Your task to perform on an android device: toggle javascript in the chrome app Image 0: 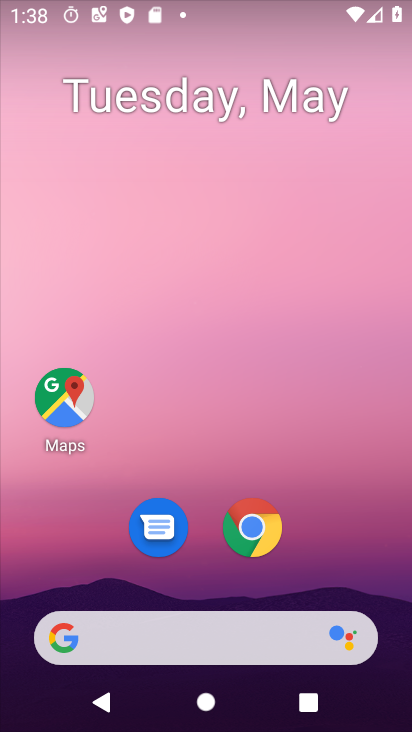
Step 0: press home button
Your task to perform on an android device: toggle javascript in the chrome app Image 1: 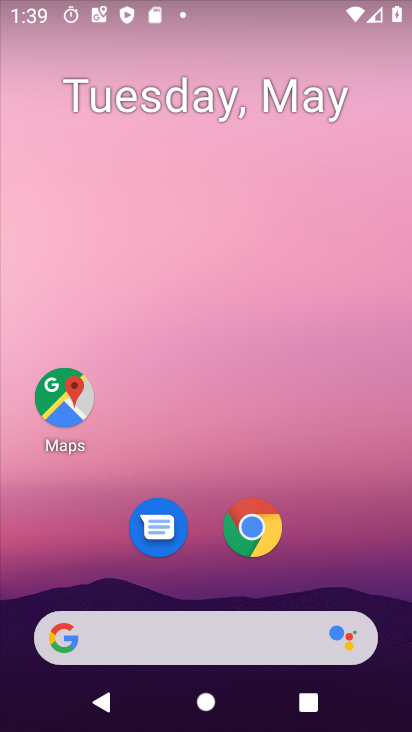
Step 1: drag from (263, 658) to (199, 219)
Your task to perform on an android device: toggle javascript in the chrome app Image 2: 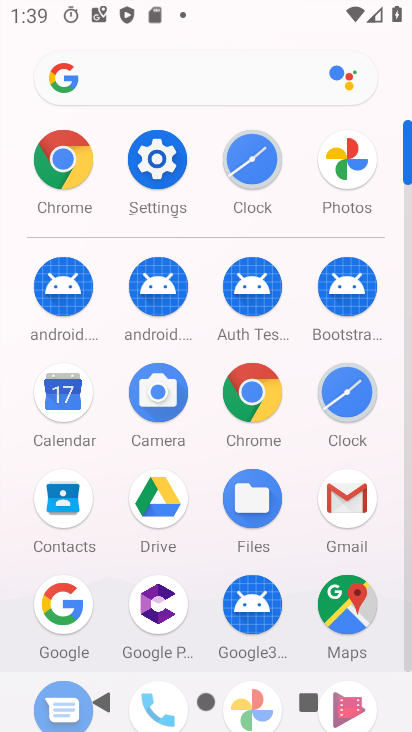
Step 2: click (81, 167)
Your task to perform on an android device: toggle javascript in the chrome app Image 3: 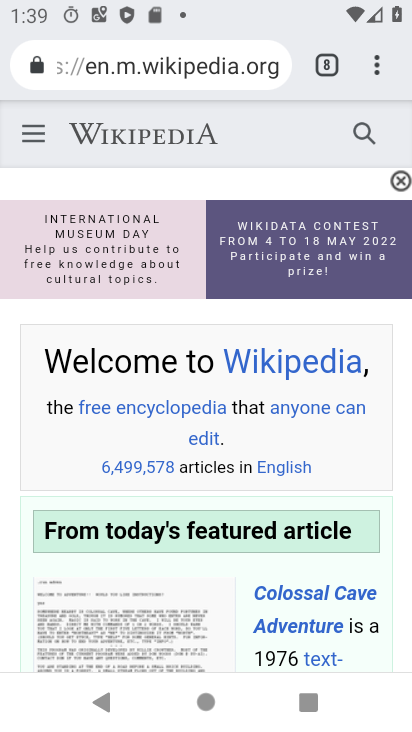
Step 3: click (372, 69)
Your task to perform on an android device: toggle javascript in the chrome app Image 4: 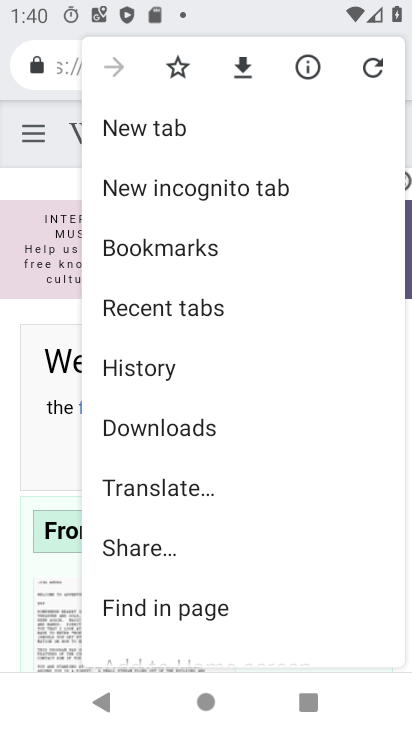
Step 4: drag from (204, 560) to (202, 405)
Your task to perform on an android device: toggle javascript in the chrome app Image 5: 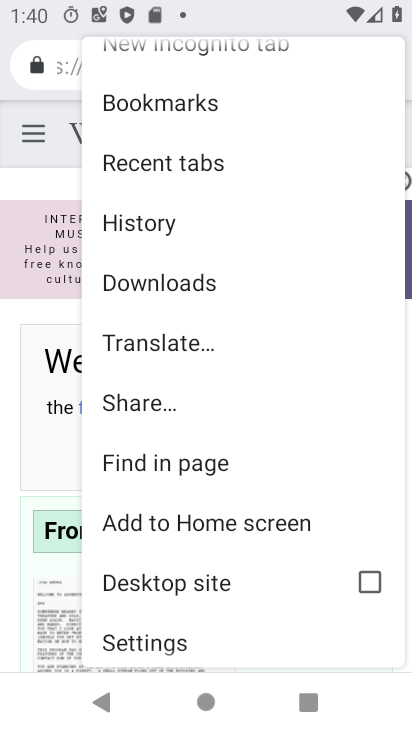
Step 5: click (170, 637)
Your task to perform on an android device: toggle javascript in the chrome app Image 6: 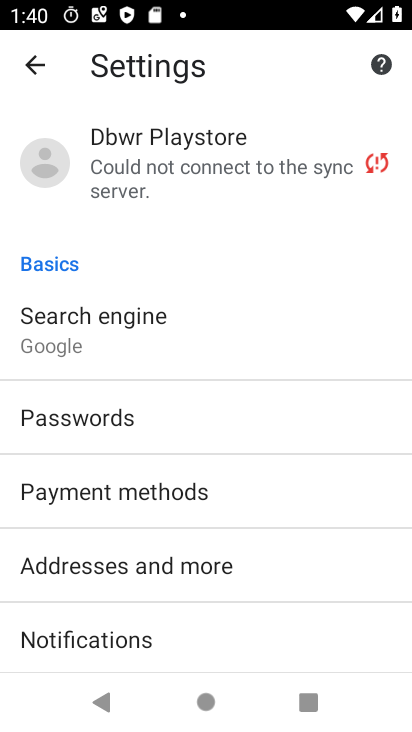
Step 6: drag from (170, 636) to (171, 435)
Your task to perform on an android device: toggle javascript in the chrome app Image 7: 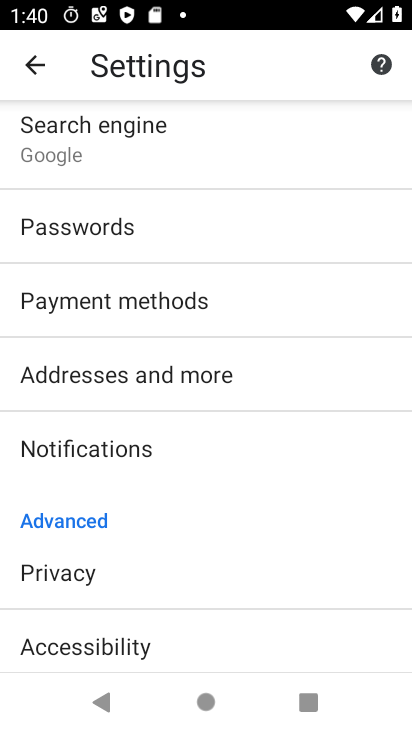
Step 7: drag from (102, 497) to (109, 344)
Your task to perform on an android device: toggle javascript in the chrome app Image 8: 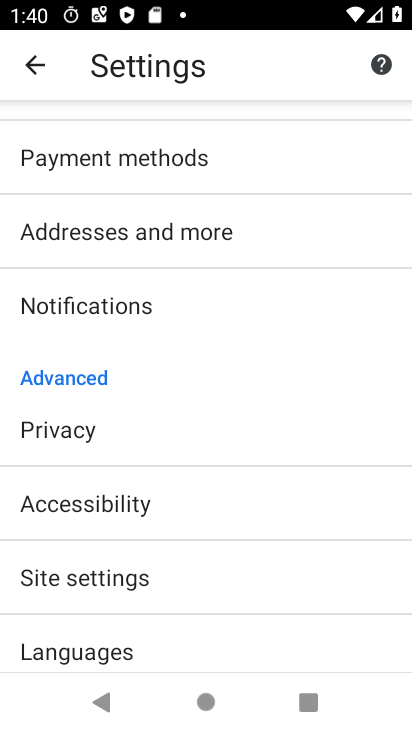
Step 8: click (86, 568)
Your task to perform on an android device: toggle javascript in the chrome app Image 9: 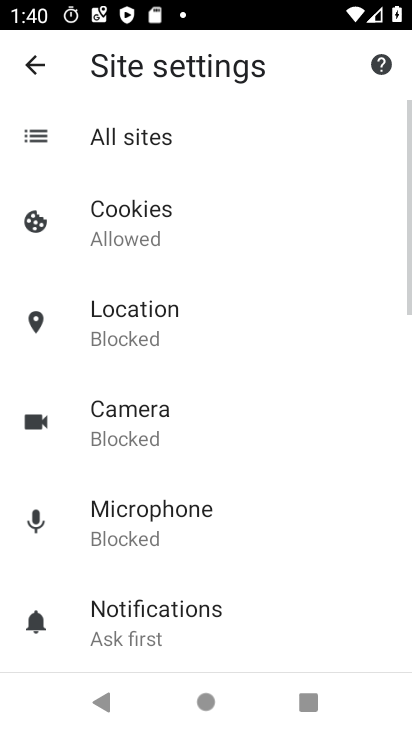
Step 9: drag from (111, 559) to (115, 381)
Your task to perform on an android device: toggle javascript in the chrome app Image 10: 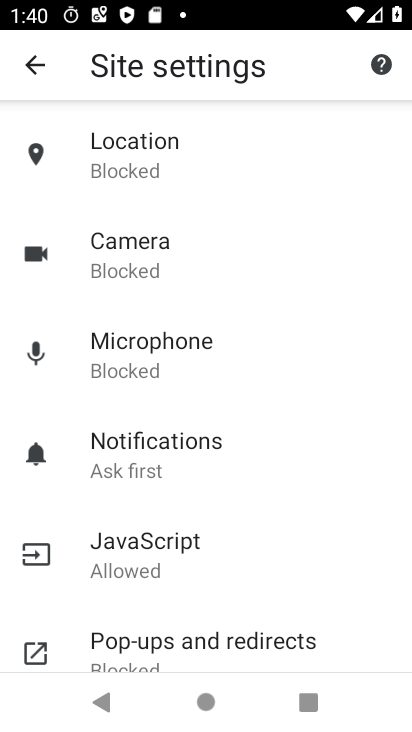
Step 10: click (217, 530)
Your task to perform on an android device: toggle javascript in the chrome app Image 11: 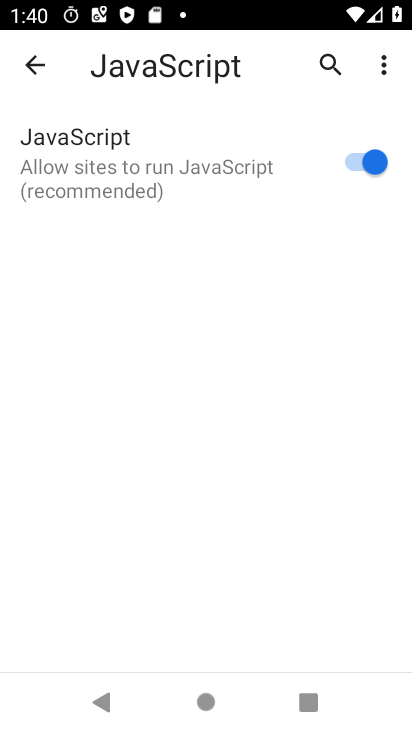
Step 11: task complete